Your task to perform on an android device: clear all cookies in the chrome app Image 0: 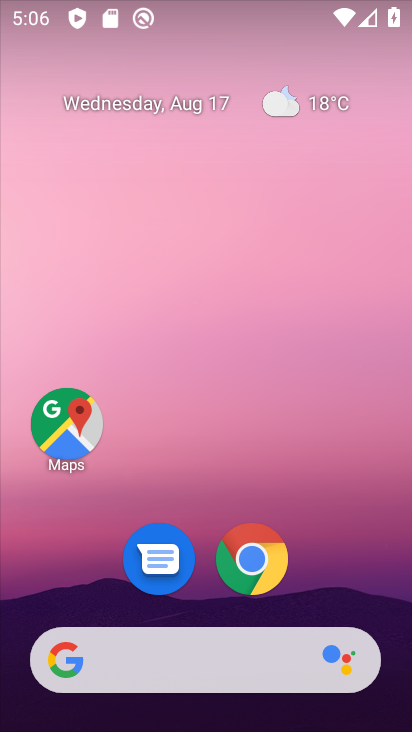
Step 0: click (239, 574)
Your task to perform on an android device: clear all cookies in the chrome app Image 1: 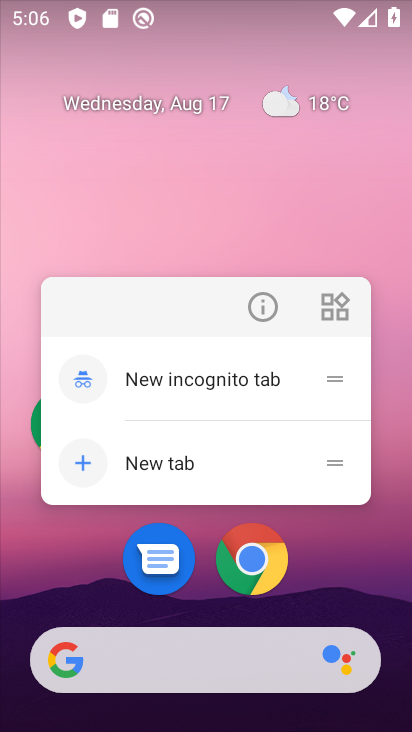
Step 1: click (239, 574)
Your task to perform on an android device: clear all cookies in the chrome app Image 2: 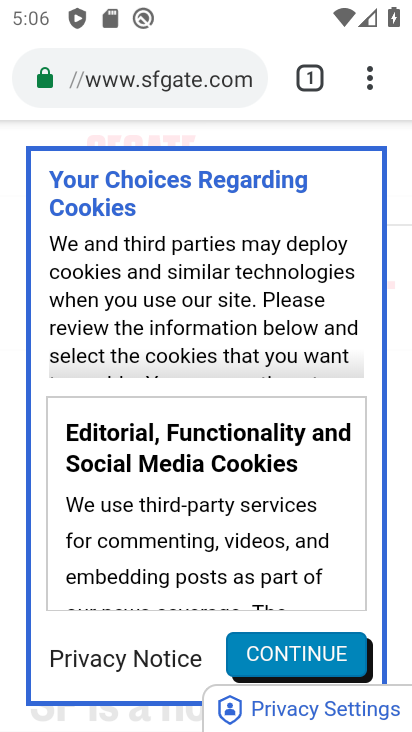
Step 2: drag from (364, 76) to (116, 433)
Your task to perform on an android device: clear all cookies in the chrome app Image 3: 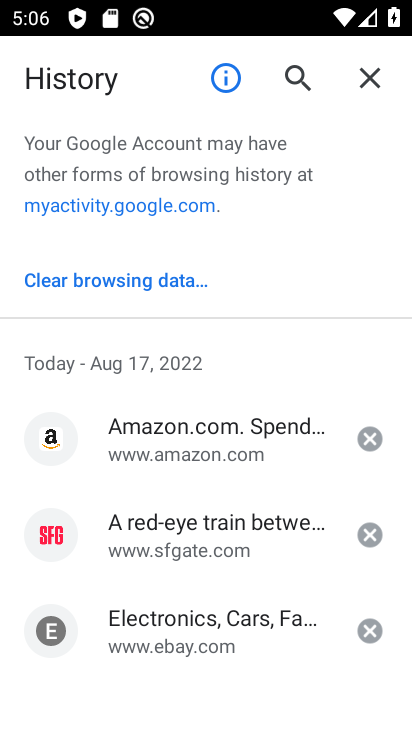
Step 3: click (84, 283)
Your task to perform on an android device: clear all cookies in the chrome app Image 4: 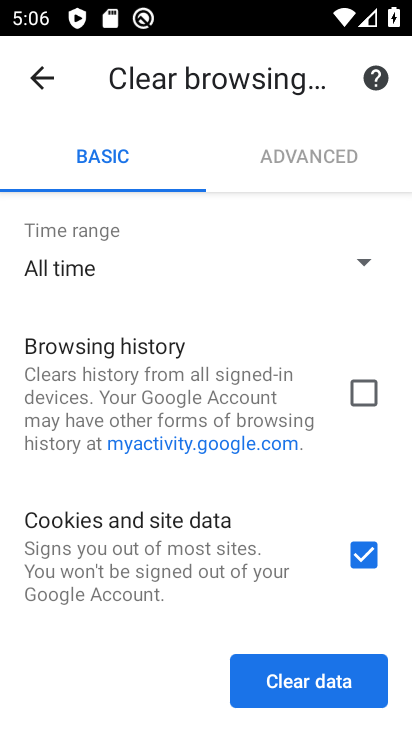
Step 4: drag from (236, 430) to (210, 81)
Your task to perform on an android device: clear all cookies in the chrome app Image 5: 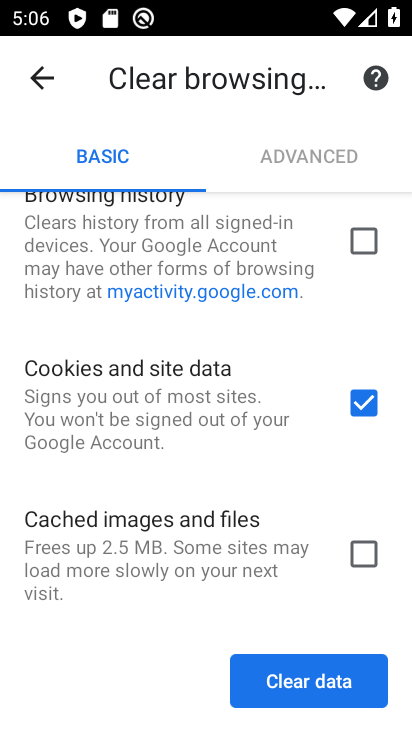
Step 5: click (272, 665)
Your task to perform on an android device: clear all cookies in the chrome app Image 6: 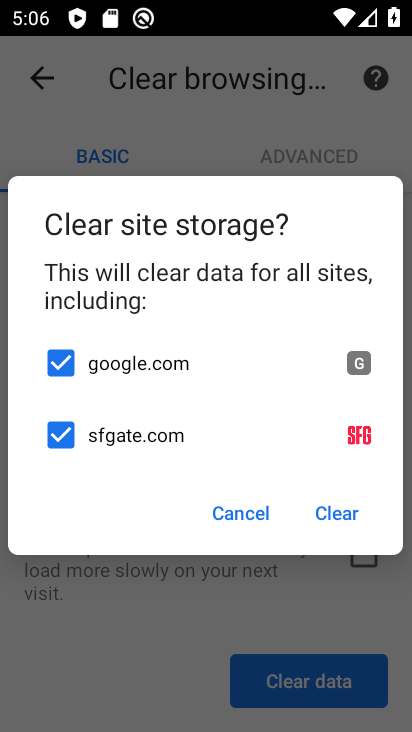
Step 6: click (331, 521)
Your task to perform on an android device: clear all cookies in the chrome app Image 7: 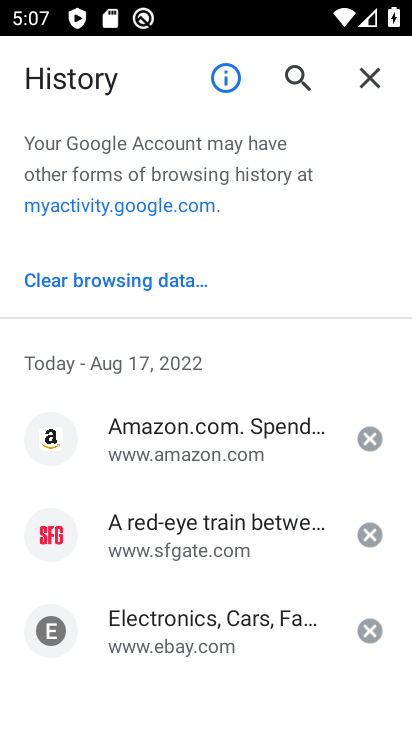
Step 7: task complete